Your task to perform on an android device: open the mobile data screen to see how much data has been used Image 0: 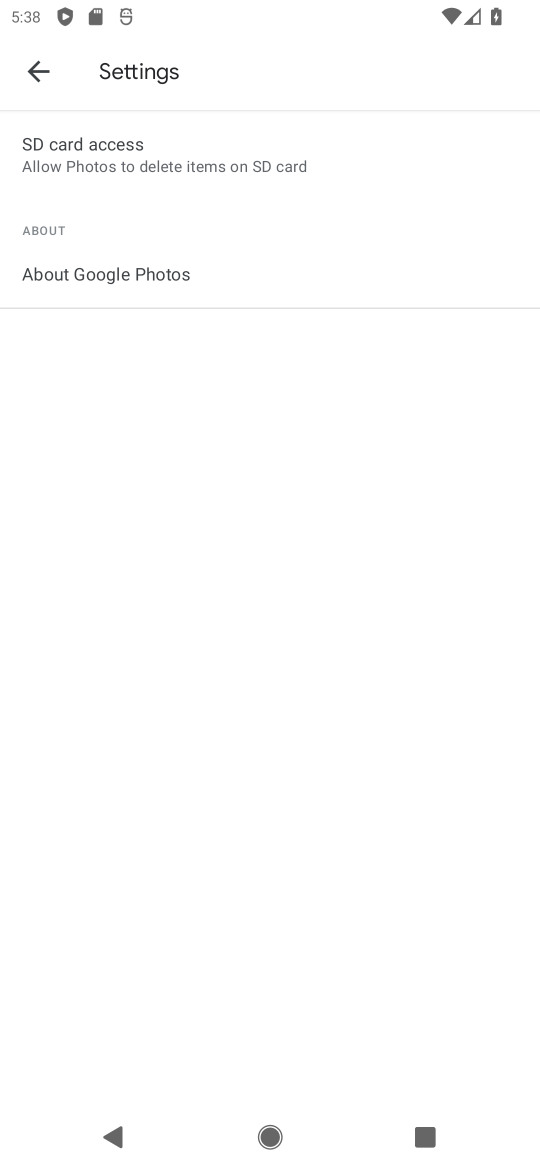
Step 0: press home button
Your task to perform on an android device: open the mobile data screen to see how much data has been used Image 1: 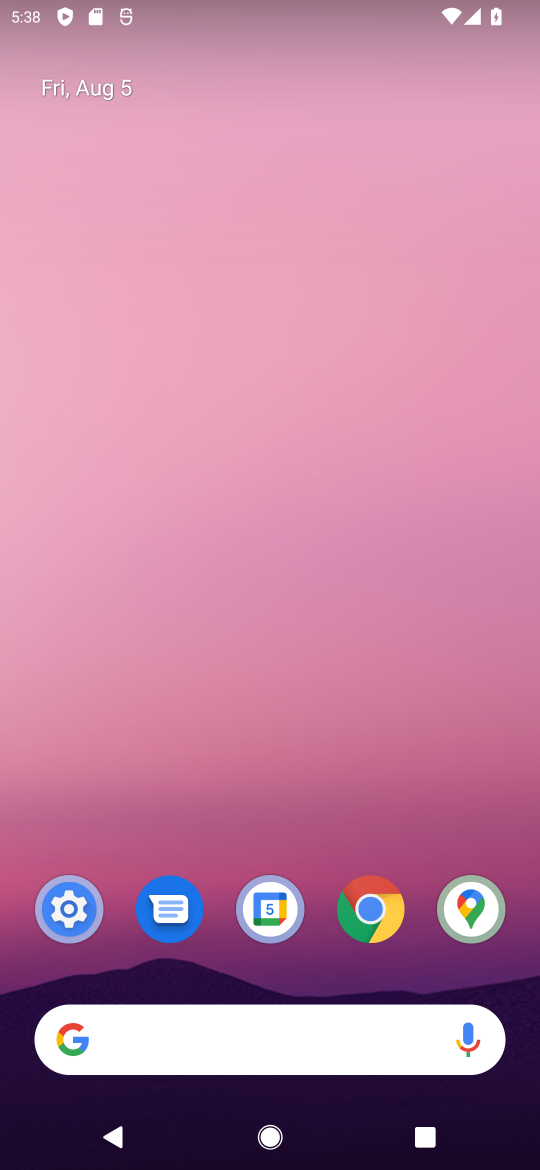
Step 1: drag from (291, 549) to (319, 17)
Your task to perform on an android device: open the mobile data screen to see how much data has been used Image 2: 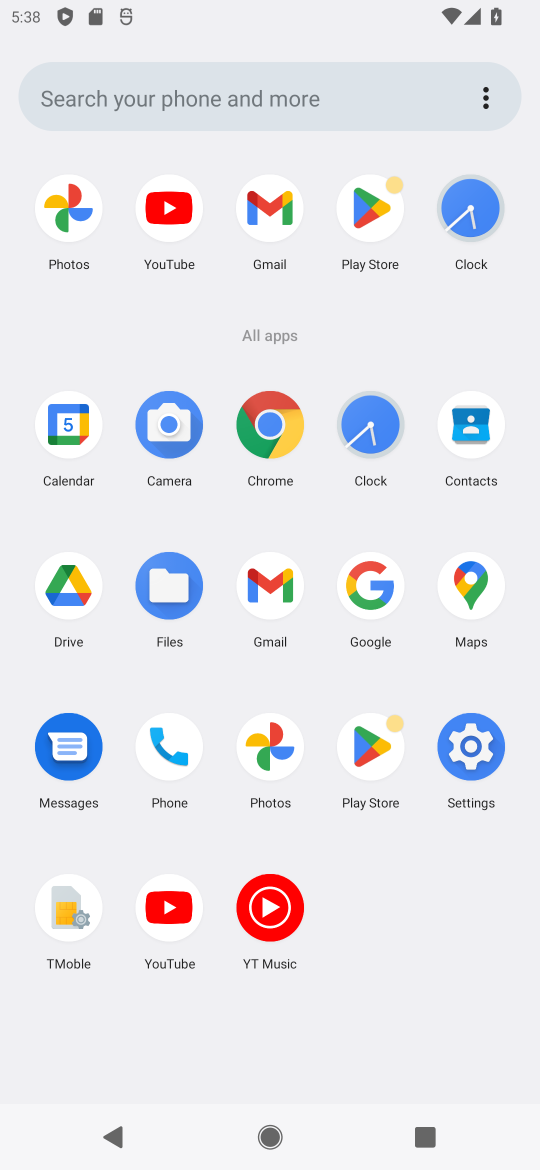
Step 2: click (475, 737)
Your task to perform on an android device: open the mobile data screen to see how much data has been used Image 3: 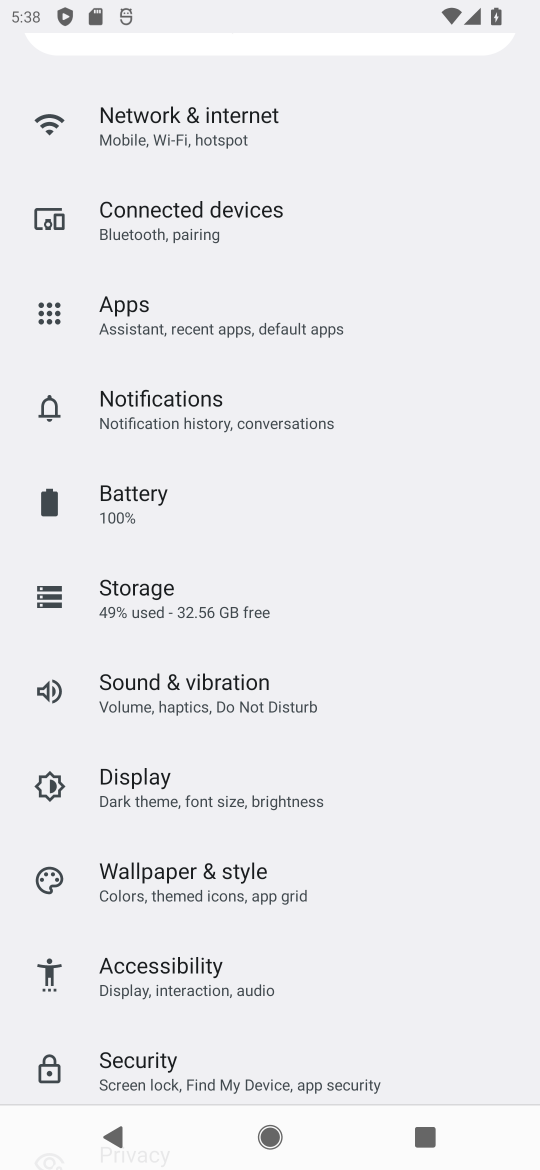
Step 3: click (147, 142)
Your task to perform on an android device: open the mobile data screen to see how much data has been used Image 4: 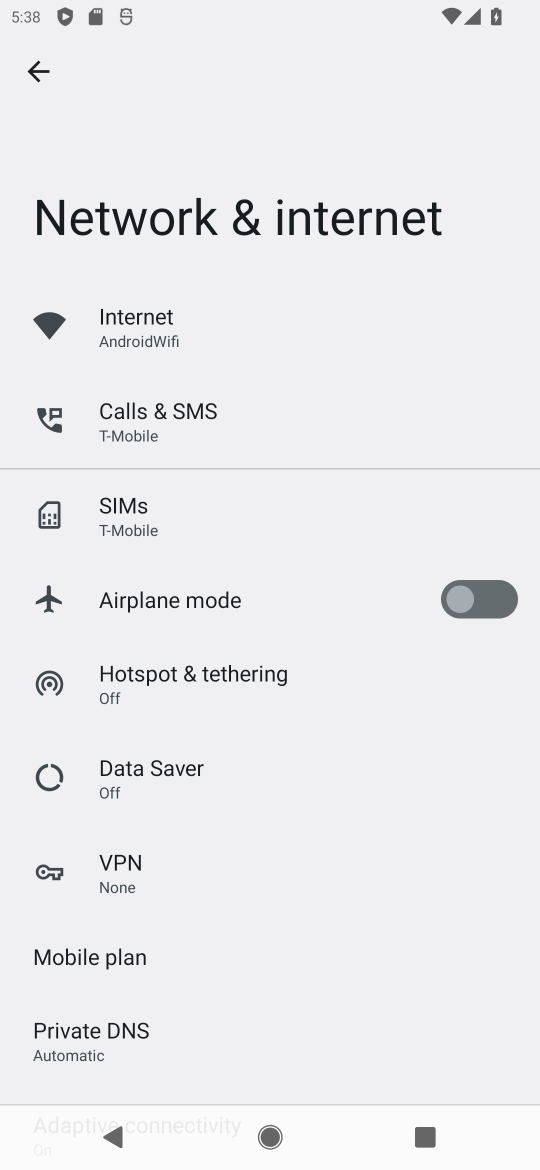
Step 4: click (133, 330)
Your task to perform on an android device: open the mobile data screen to see how much data has been used Image 5: 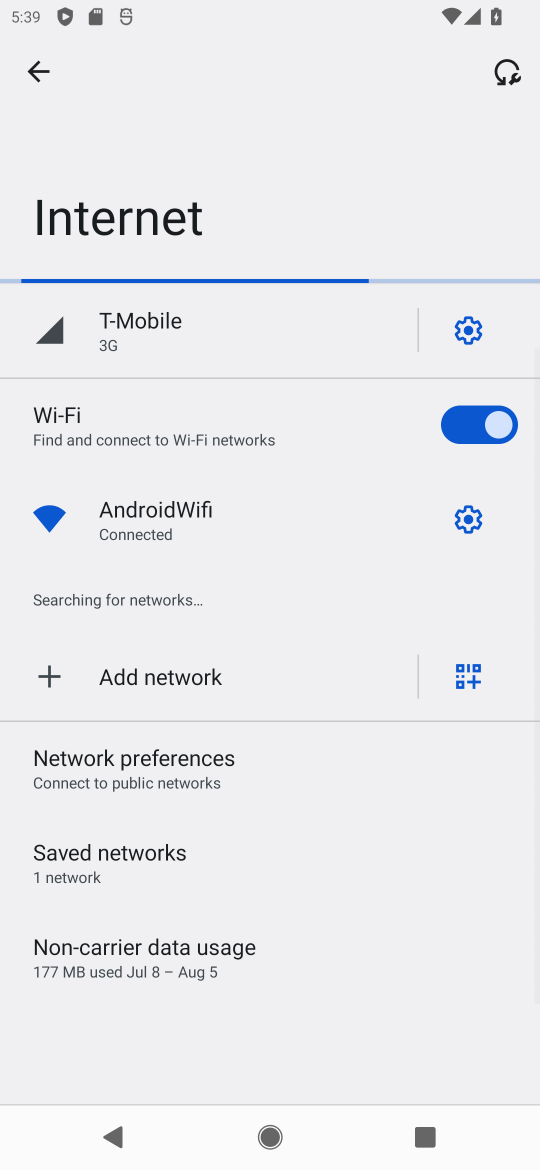
Step 5: click (155, 968)
Your task to perform on an android device: open the mobile data screen to see how much data has been used Image 6: 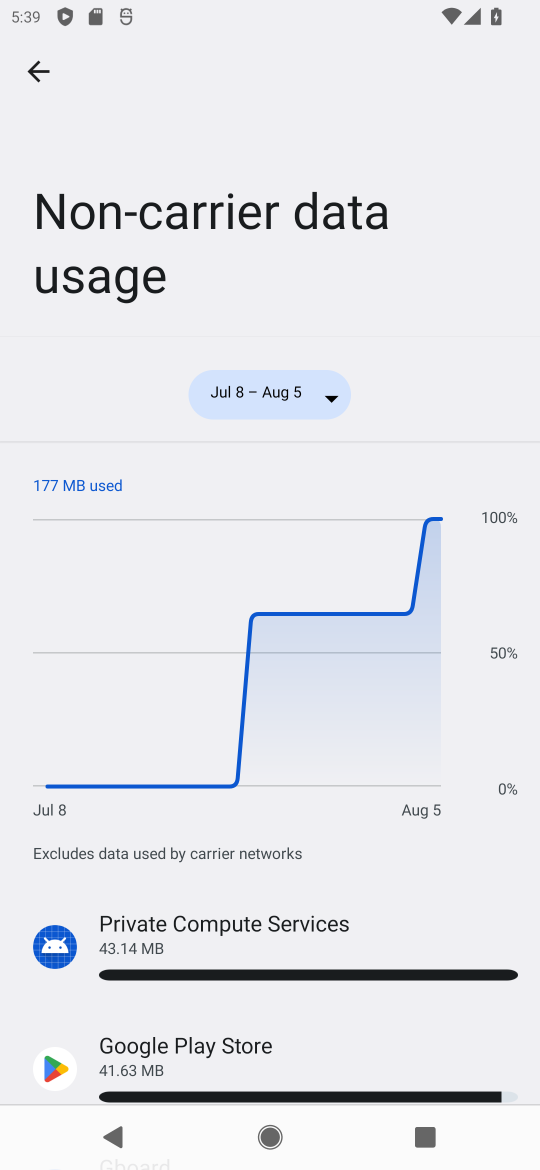
Step 6: task complete